Your task to perform on an android device: Turn off the flashlight Image 0: 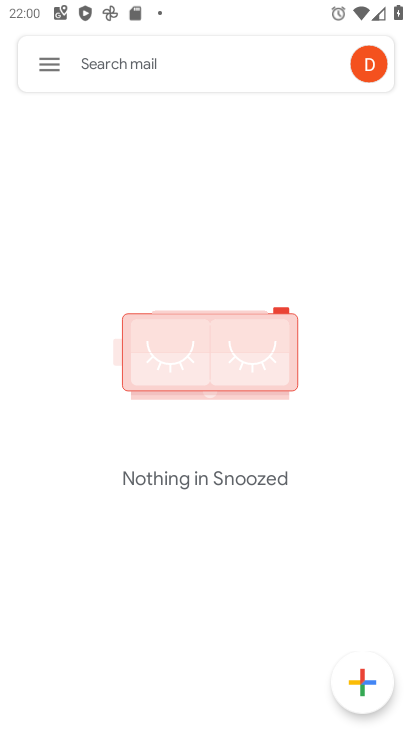
Step 0: press home button
Your task to perform on an android device: Turn off the flashlight Image 1: 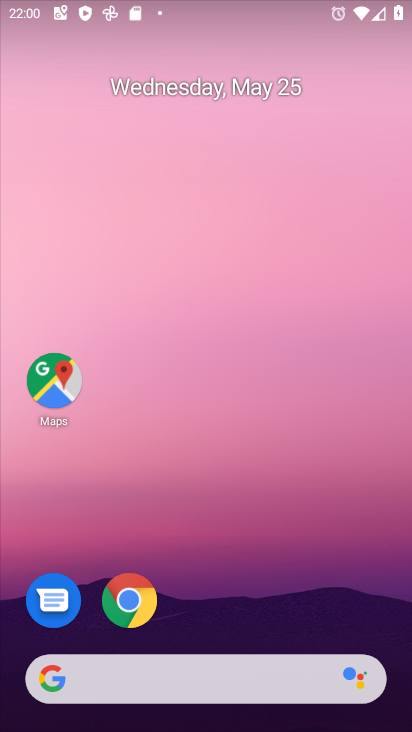
Step 1: drag from (384, 560) to (304, 160)
Your task to perform on an android device: Turn off the flashlight Image 2: 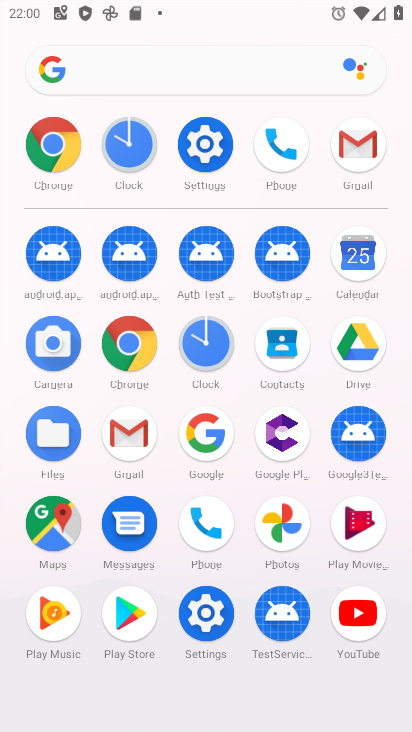
Step 2: click (215, 137)
Your task to perform on an android device: Turn off the flashlight Image 3: 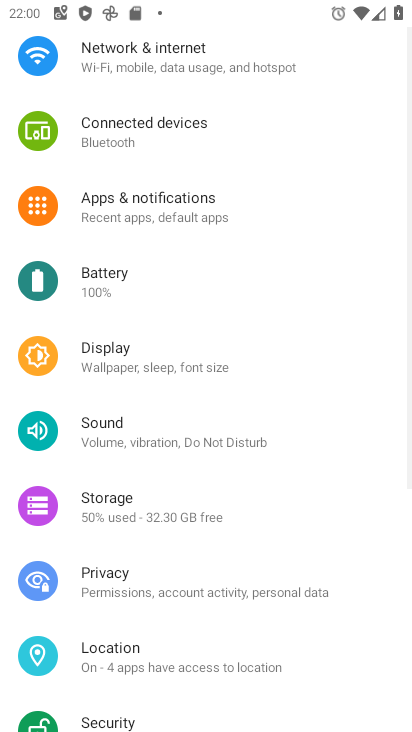
Step 3: drag from (215, 183) to (288, 578)
Your task to perform on an android device: Turn off the flashlight Image 4: 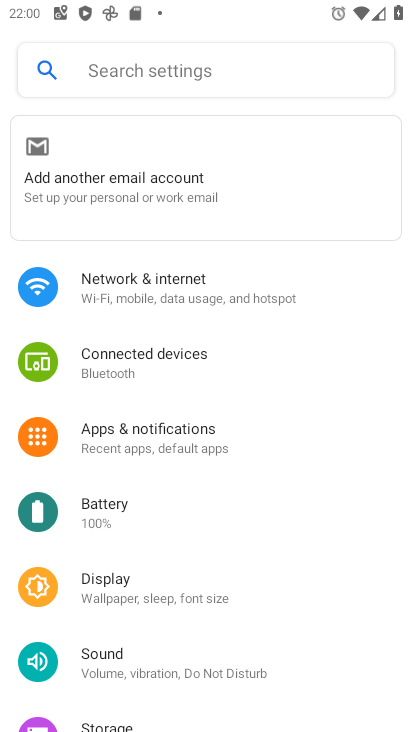
Step 4: click (240, 70)
Your task to perform on an android device: Turn off the flashlight Image 5: 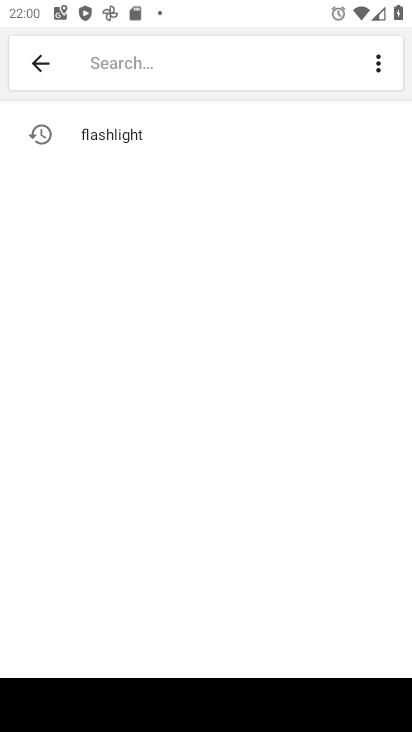
Step 5: type "flashlight"
Your task to perform on an android device: Turn off the flashlight Image 6: 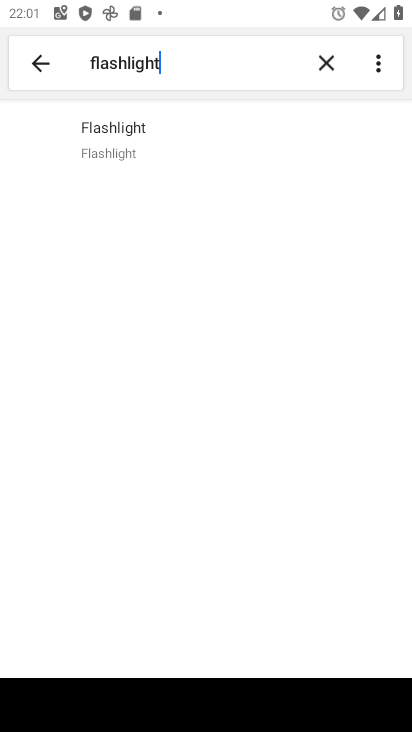
Step 6: click (140, 134)
Your task to perform on an android device: Turn off the flashlight Image 7: 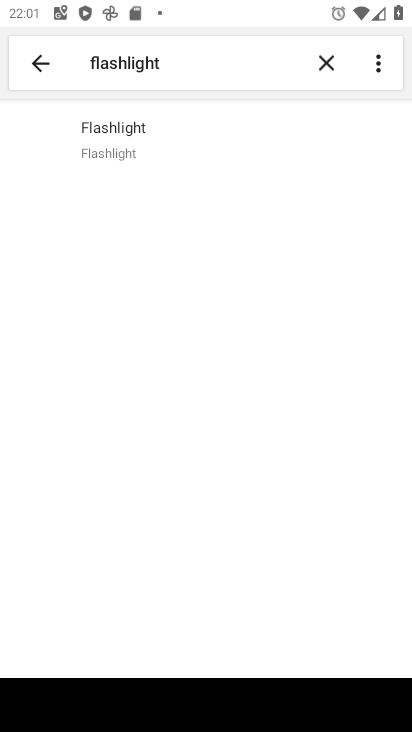
Step 7: click (135, 140)
Your task to perform on an android device: Turn off the flashlight Image 8: 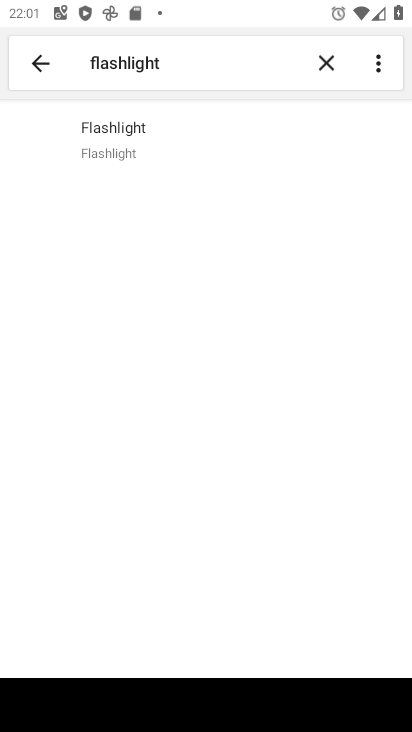
Step 8: task complete